Your task to perform on an android device: Google the capital of Ecuador Image 0: 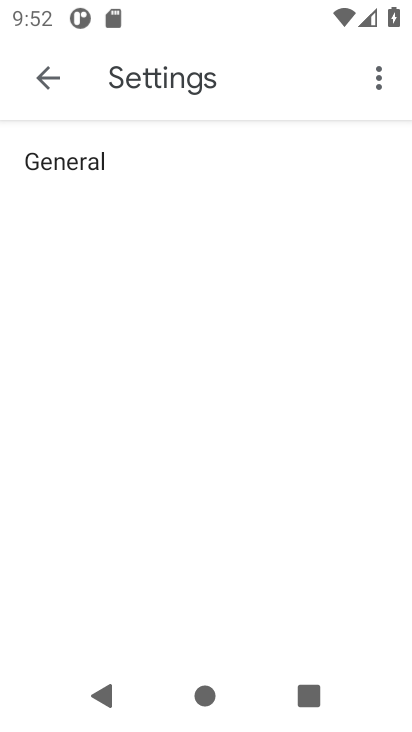
Step 0: press home button
Your task to perform on an android device: Google the capital of Ecuador Image 1: 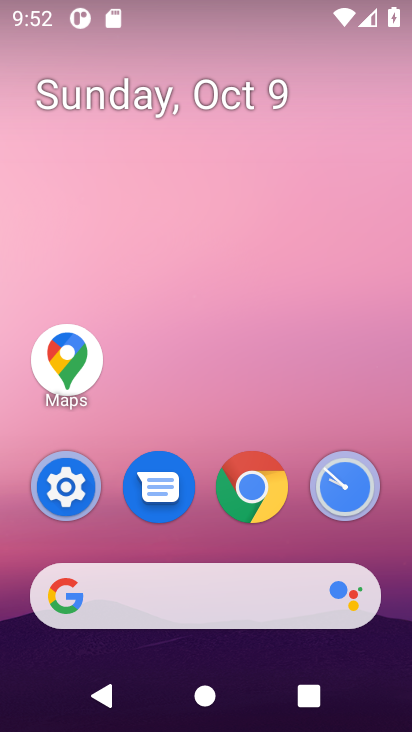
Step 1: click (255, 492)
Your task to perform on an android device: Google the capital of Ecuador Image 2: 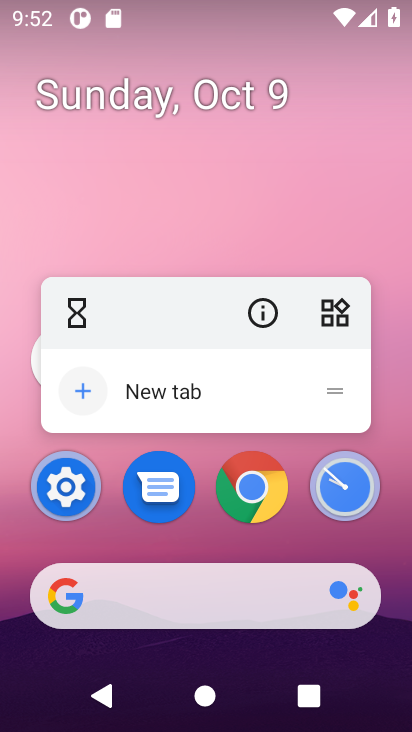
Step 2: click (253, 508)
Your task to perform on an android device: Google the capital of Ecuador Image 3: 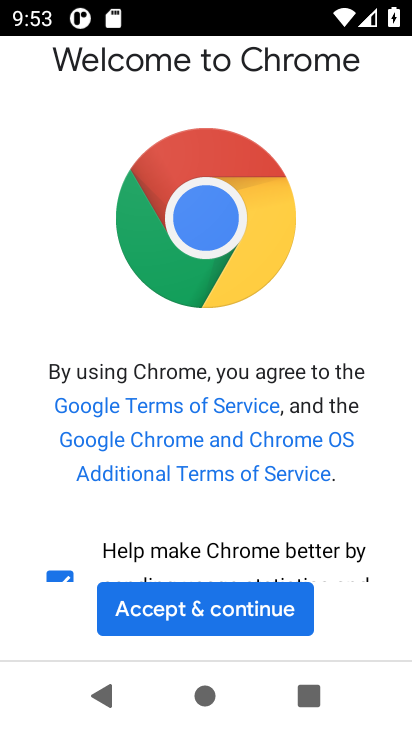
Step 3: click (217, 604)
Your task to perform on an android device: Google the capital of Ecuador Image 4: 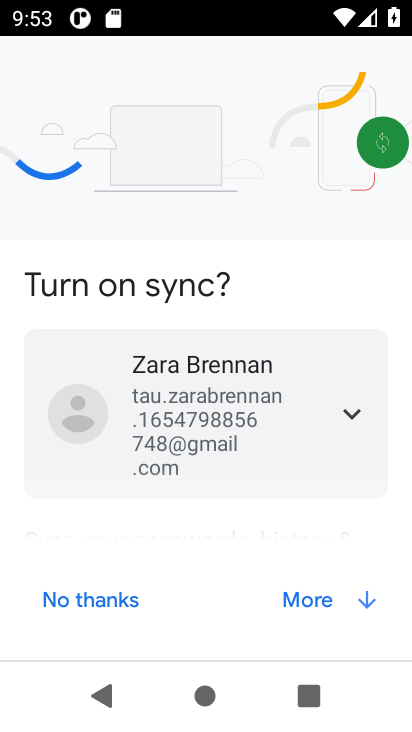
Step 4: click (329, 608)
Your task to perform on an android device: Google the capital of Ecuador Image 5: 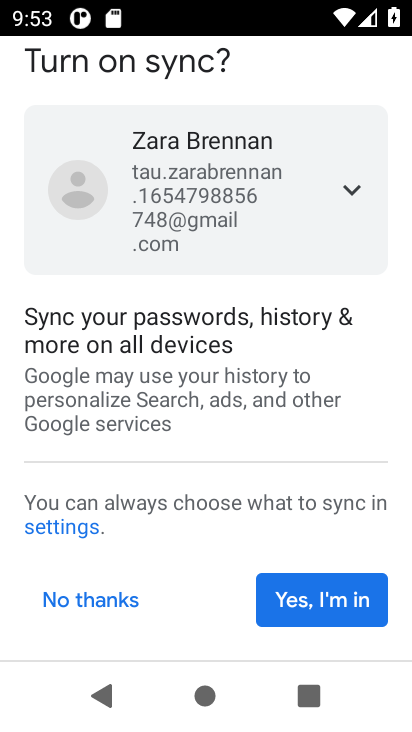
Step 5: click (331, 608)
Your task to perform on an android device: Google the capital of Ecuador Image 6: 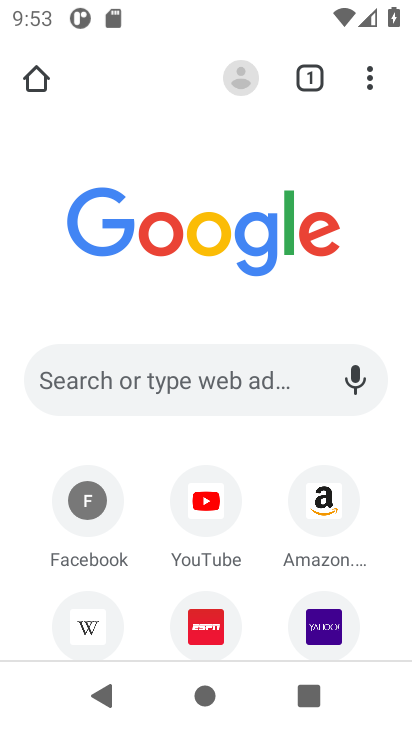
Step 6: click (200, 384)
Your task to perform on an android device: Google the capital of Ecuador Image 7: 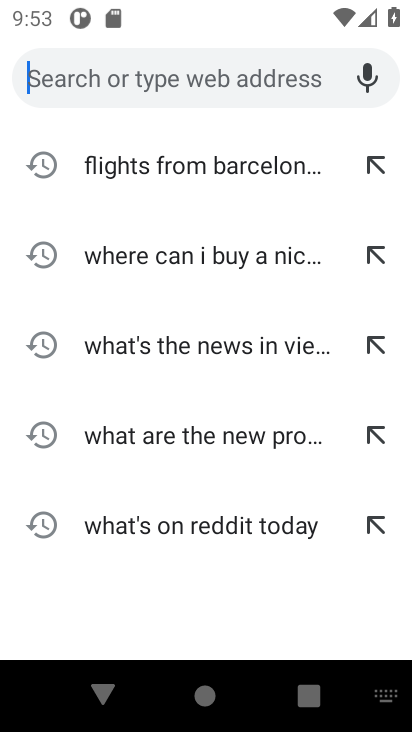
Step 7: type "capital of ecuador"
Your task to perform on an android device: Google the capital of Ecuador Image 8: 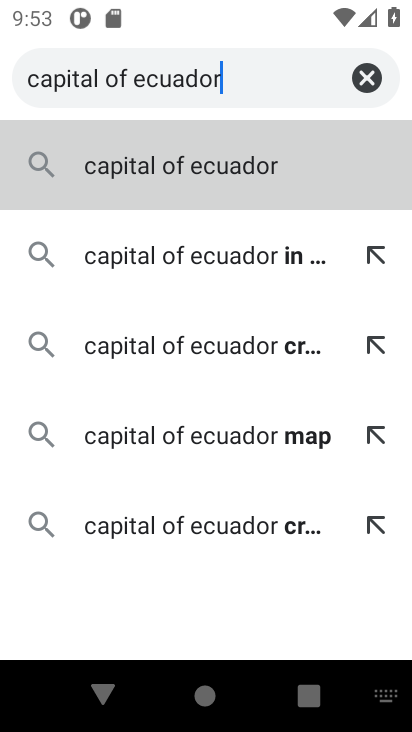
Step 8: type ""
Your task to perform on an android device: Google the capital of Ecuador Image 9: 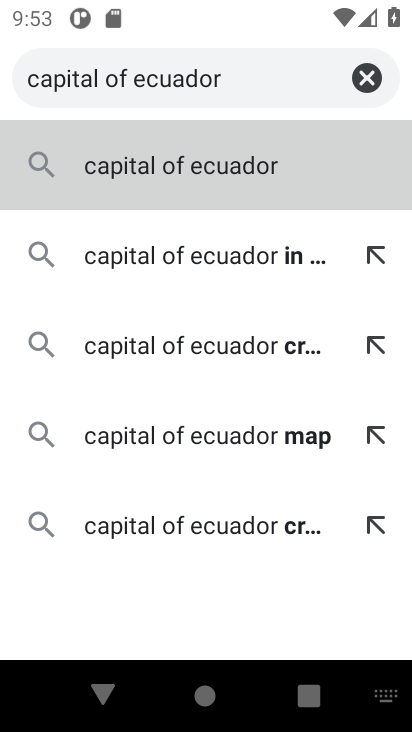
Step 9: press enter
Your task to perform on an android device: Google the capital of Ecuador Image 10: 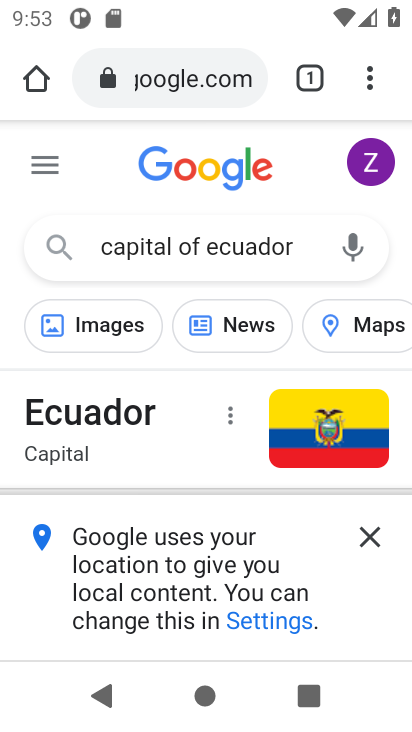
Step 10: click (368, 541)
Your task to perform on an android device: Google the capital of Ecuador Image 11: 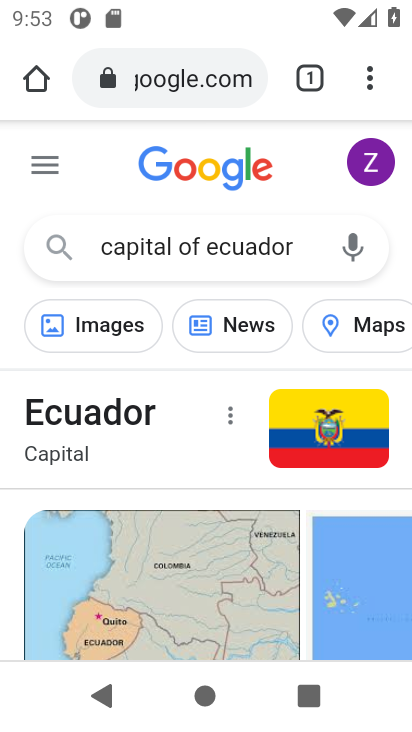
Step 11: task complete